Your task to perform on an android device: Open network settings Image 0: 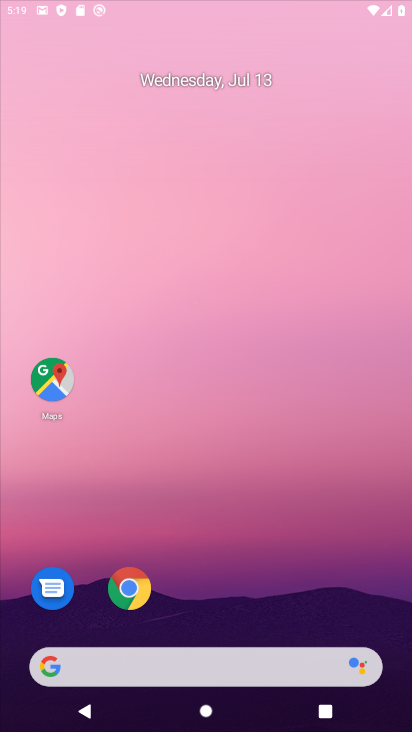
Step 0: press home button
Your task to perform on an android device: Open network settings Image 1: 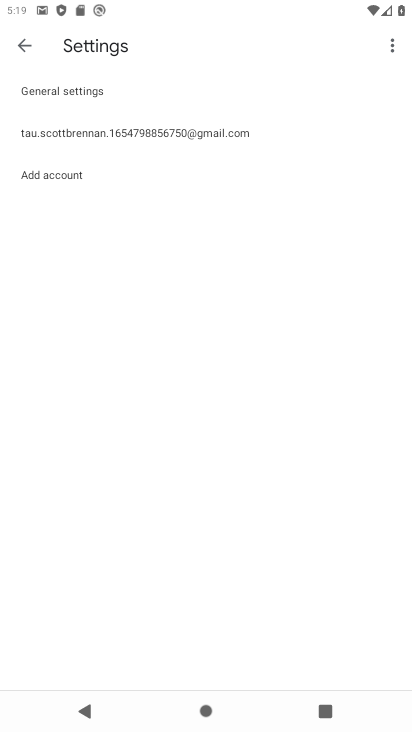
Step 1: drag from (208, 249) to (230, 180)
Your task to perform on an android device: Open network settings Image 2: 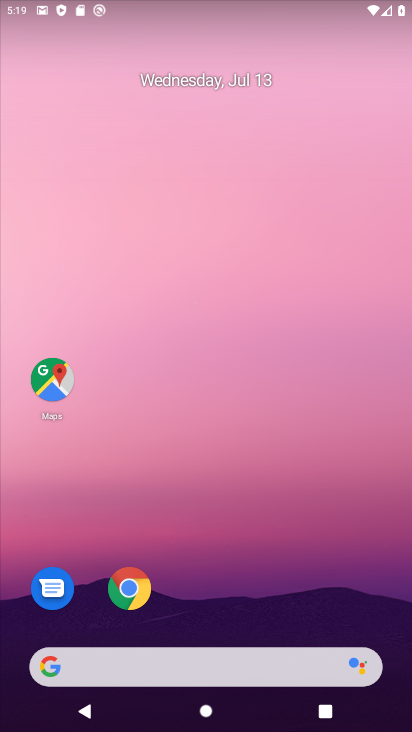
Step 2: press home button
Your task to perform on an android device: Open network settings Image 3: 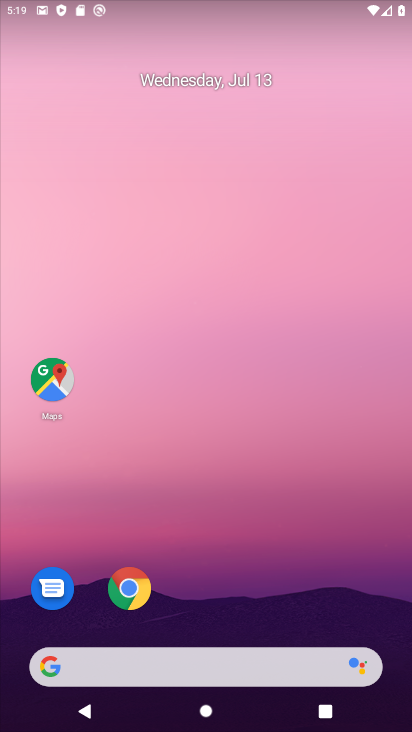
Step 3: drag from (199, 551) to (184, 145)
Your task to perform on an android device: Open network settings Image 4: 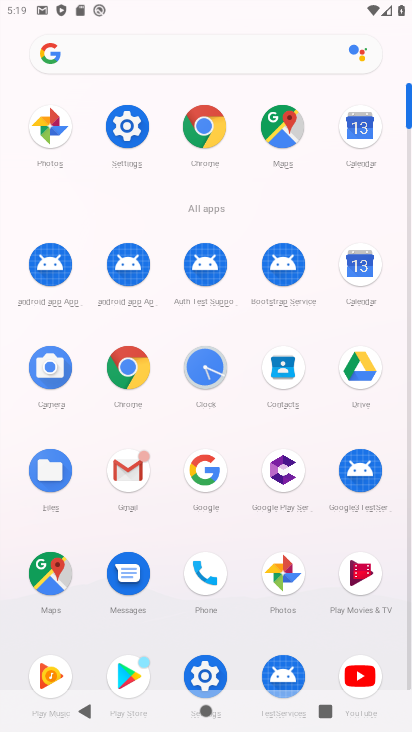
Step 4: click (129, 127)
Your task to perform on an android device: Open network settings Image 5: 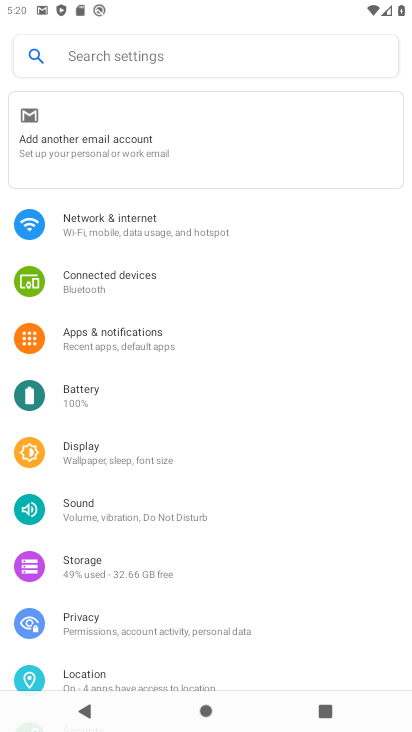
Step 5: click (121, 227)
Your task to perform on an android device: Open network settings Image 6: 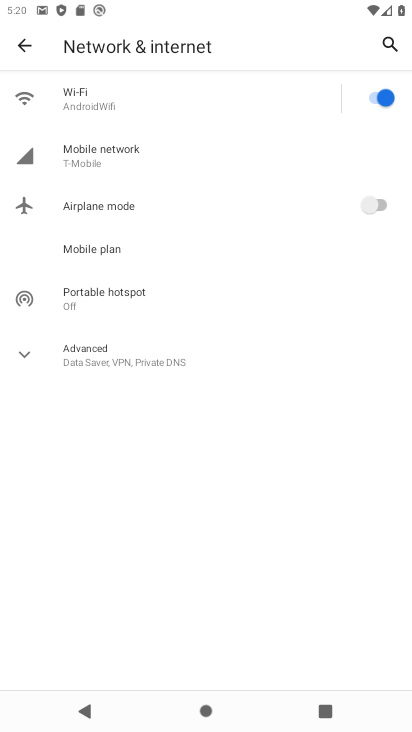
Step 6: task complete